Your task to perform on an android device: allow cookies in the chrome app Image 0: 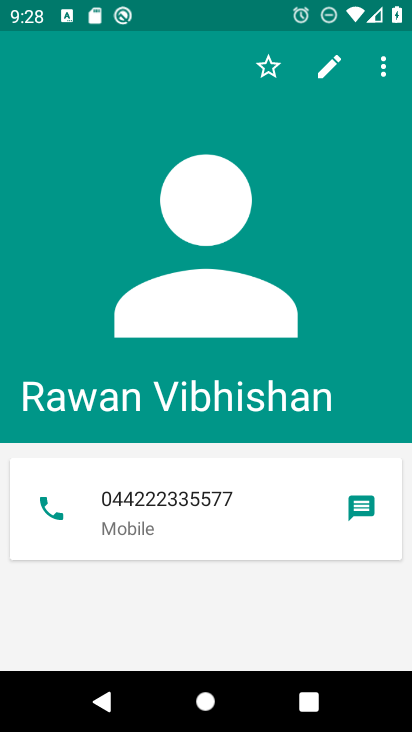
Step 0: press home button
Your task to perform on an android device: allow cookies in the chrome app Image 1: 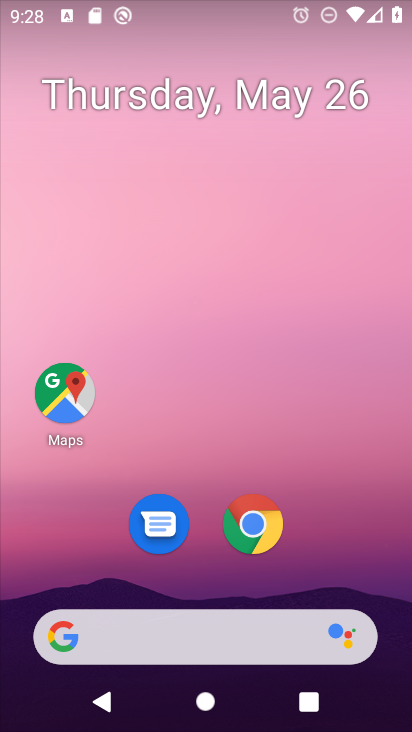
Step 1: click (256, 523)
Your task to perform on an android device: allow cookies in the chrome app Image 2: 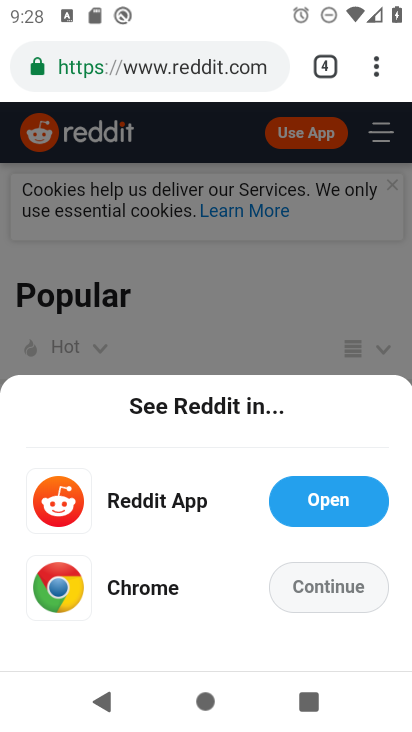
Step 2: press back button
Your task to perform on an android device: allow cookies in the chrome app Image 3: 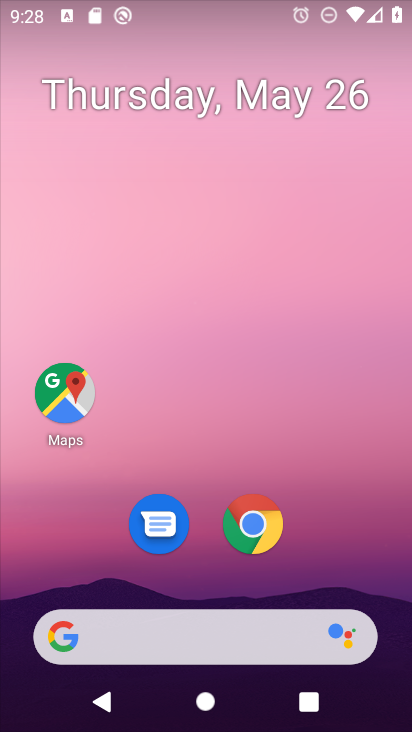
Step 3: click (256, 513)
Your task to perform on an android device: allow cookies in the chrome app Image 4: 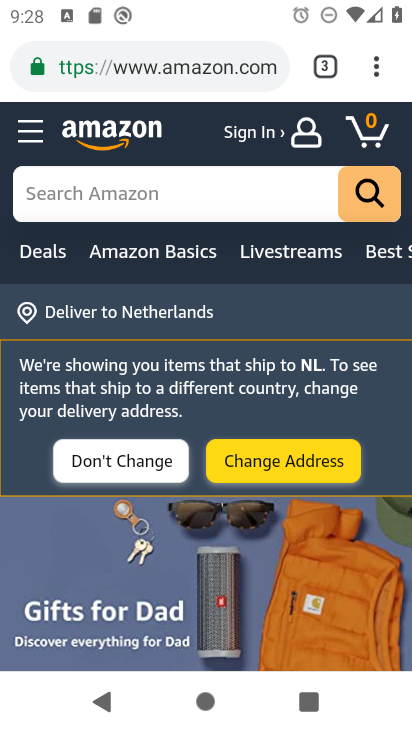
Step 4: click (376, 73)
Your task to perform on an android device: allow cookies in the chrome app Image 5: 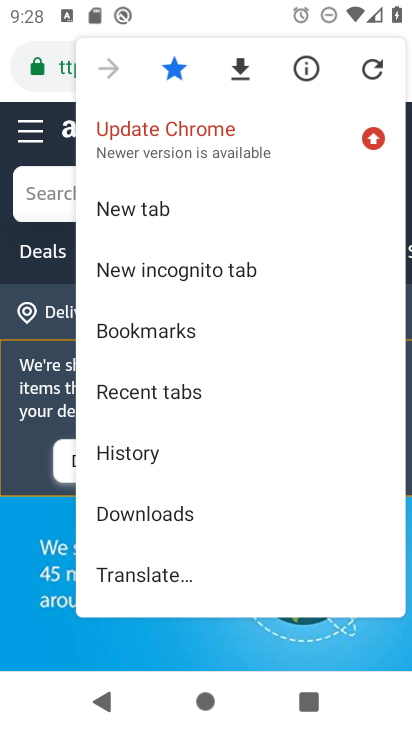
Step 5: drag from (249, 413) to (239, 123)
Your task to perform on an android device: allow cookies in the chrome app Image 6: 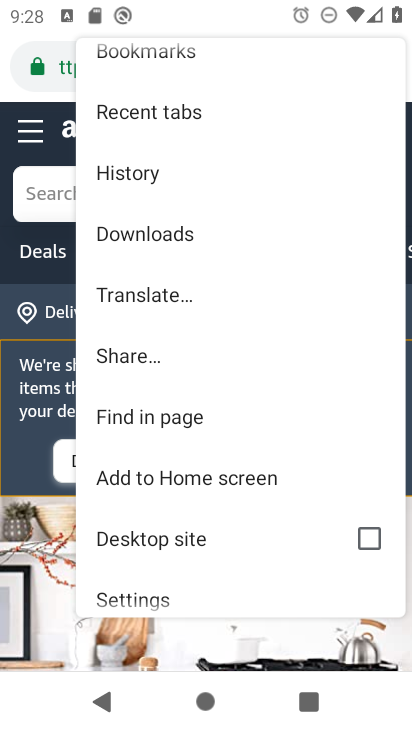
Step 6: drag from (220, 317) to (235, 137)
Your task to perform on an android device: allow cookies in the chrome app Image 7: 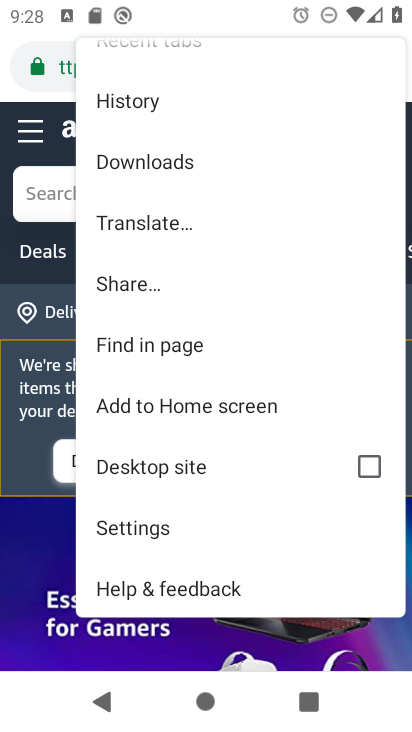
Step 7: click (173, 525)
Your task to perform on an android device: allow cookies in the chrome app Image 8: 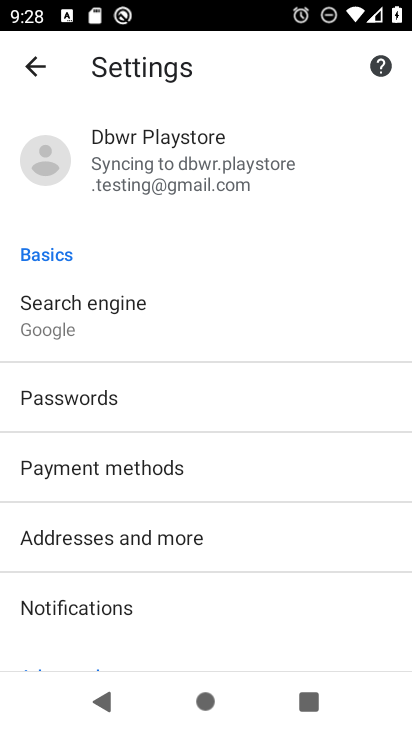
Step 8: drag from (231, 450) to (257, 119)
Your task to perform on an android device: allow cookies in the chrome app Image 9: 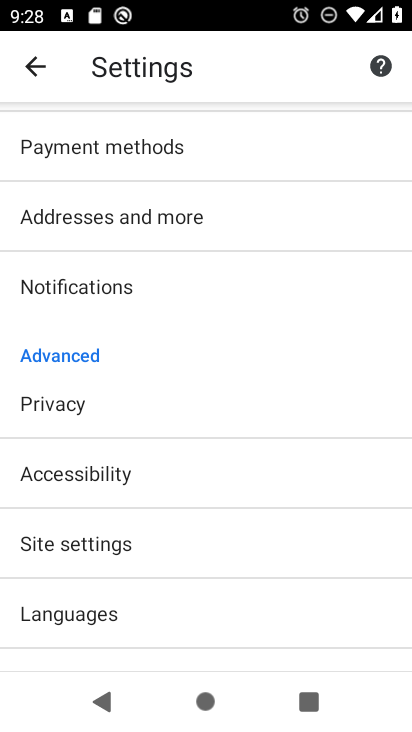
Step 9: drag from (218, 359) to (227, 195)
Your task to perform on an android device: allow cookies in the chrome app Image 10: 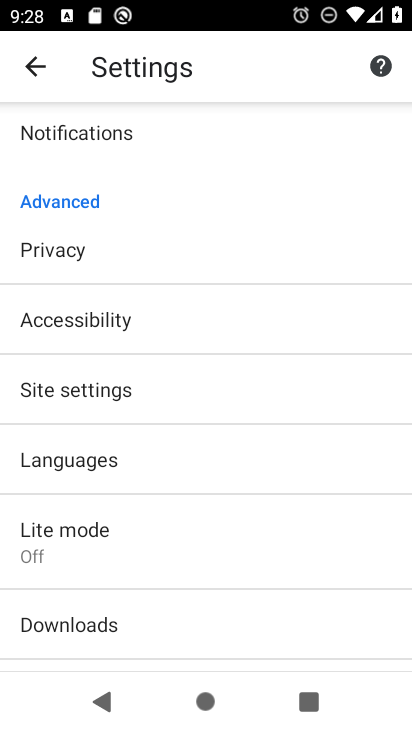
Step 10: click (216, 396)
Your task to perform on an android device: allow cookies in the chrome app Image 11: 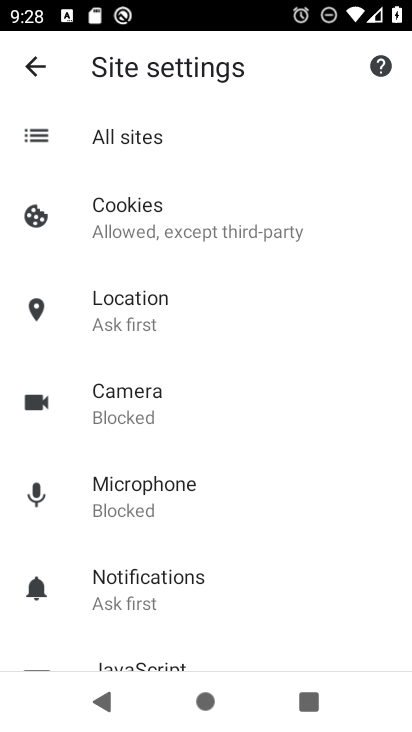
Step 11: task complete